Your task to perform on an android device: Show me popular videos on Youtube Image 0: 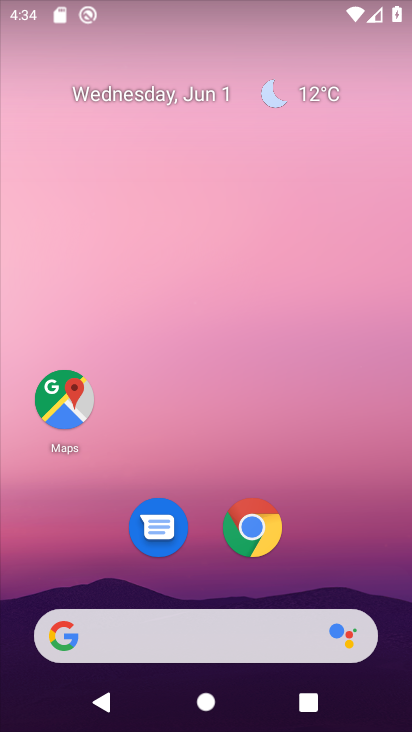
Step 0: drag from (183, 604) to (262, 65)
Your task to perform on an android device: Show me popular videos on Youtube Image 1: 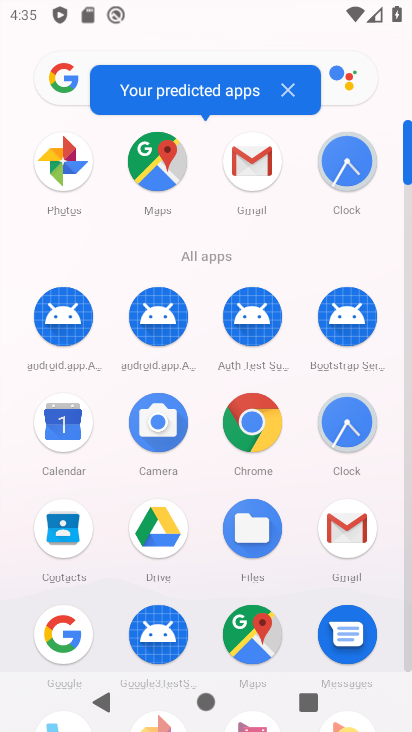
Step 1: drag from (300, 607) to (274, 225)
Your task to perform on an android device: Show me popular videos on Youtube Image 2: 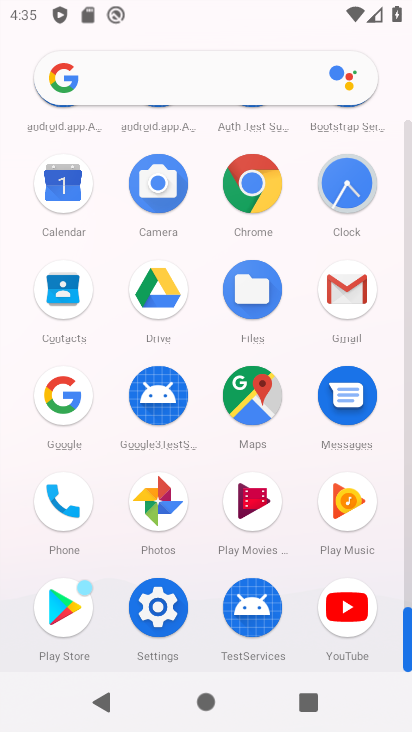
Step 2: click (355, 628)
Your task to perform on an android device: Show me popular videos on Youtube Image 3: 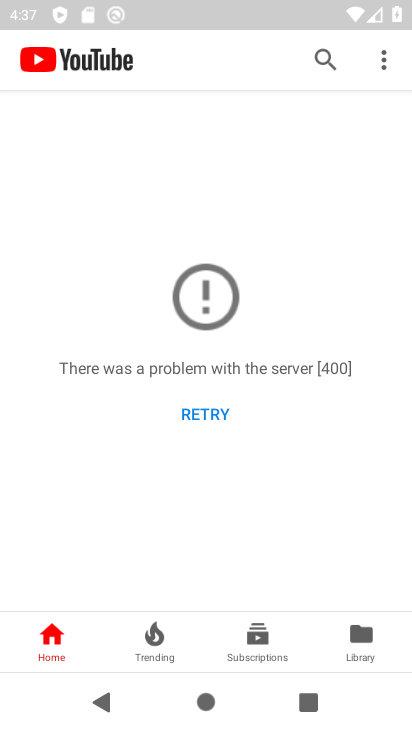
Step 3: task complete